Your task to perform on an android device: Set an alarm for 11am Image 0: 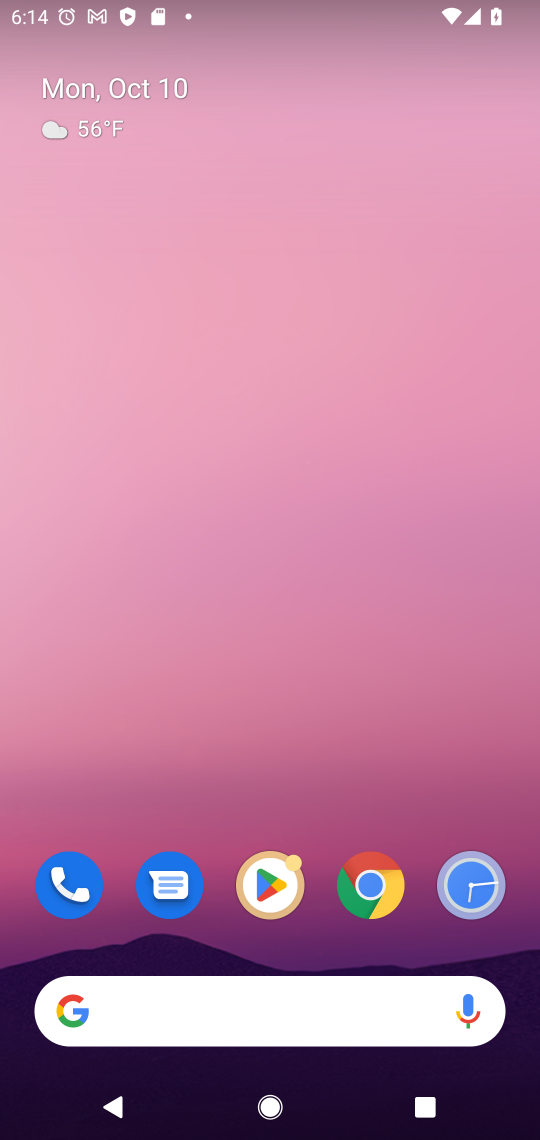
Step 0: click (457, 894)
Your task to perform on an android device: Set an alarm for 11am Image 1: 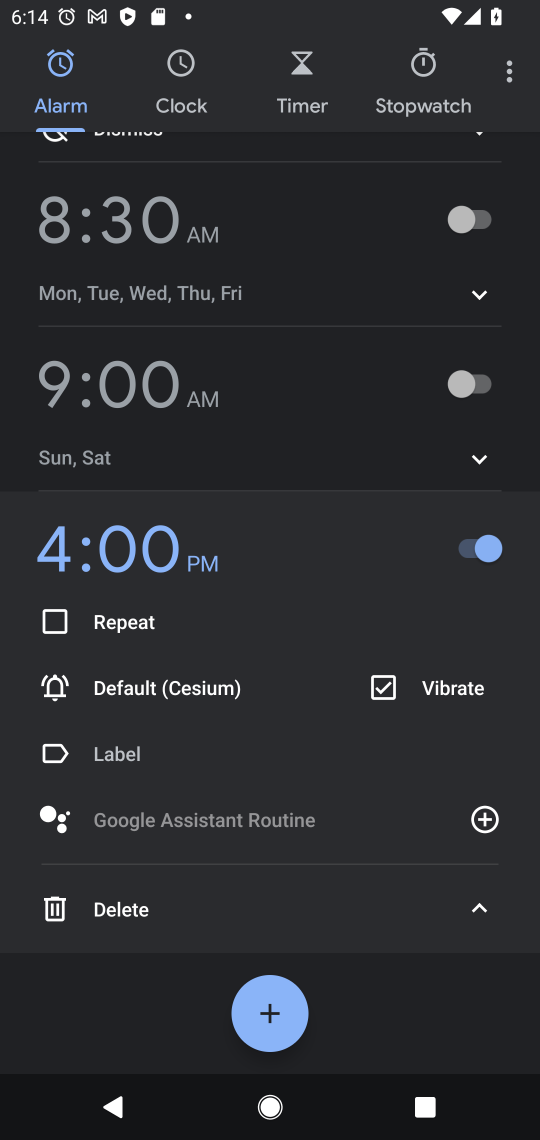
Step 1: click (274, 1031)
Your task to perform on an android device: Set an alarm for 11am Image 2: 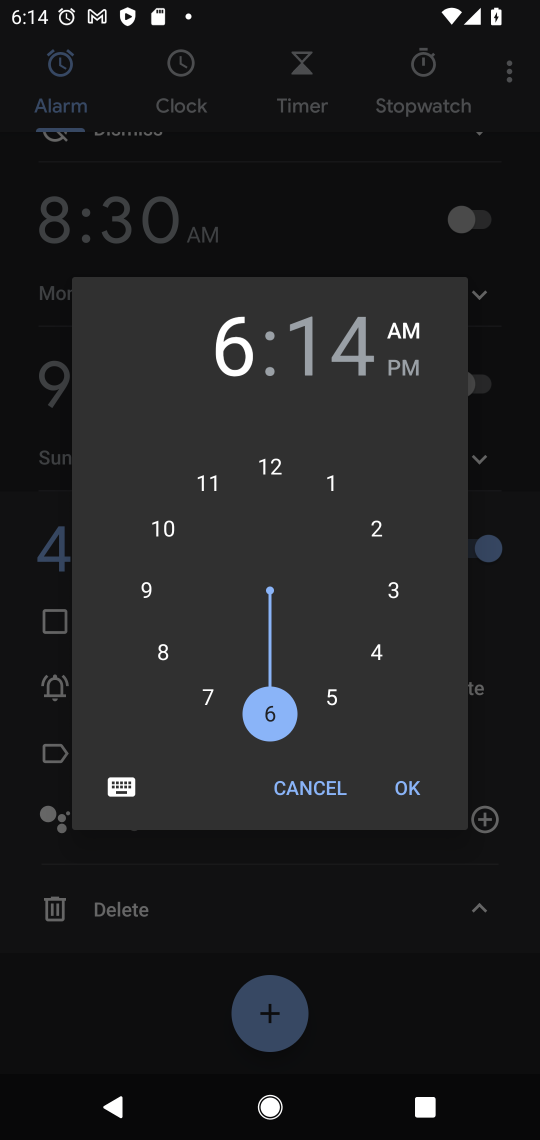
Step 2: click (215, 485)
Your task to perform on an android device: Set an alarm for 11am Image 3: 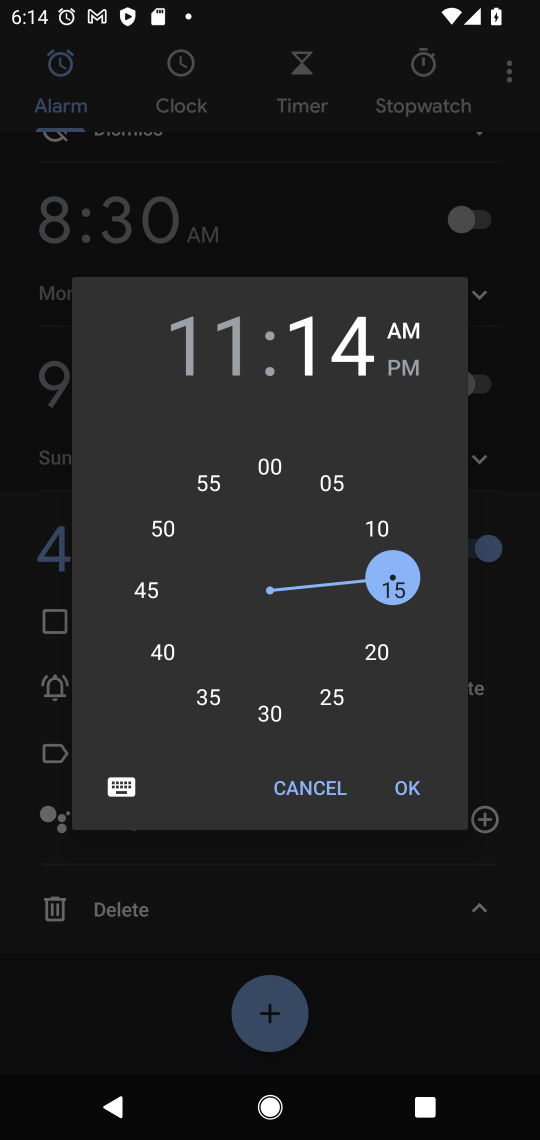
Step 3: click (275, 466)
Your task to perform on an android device: Set an alarm for 11am Image 4: 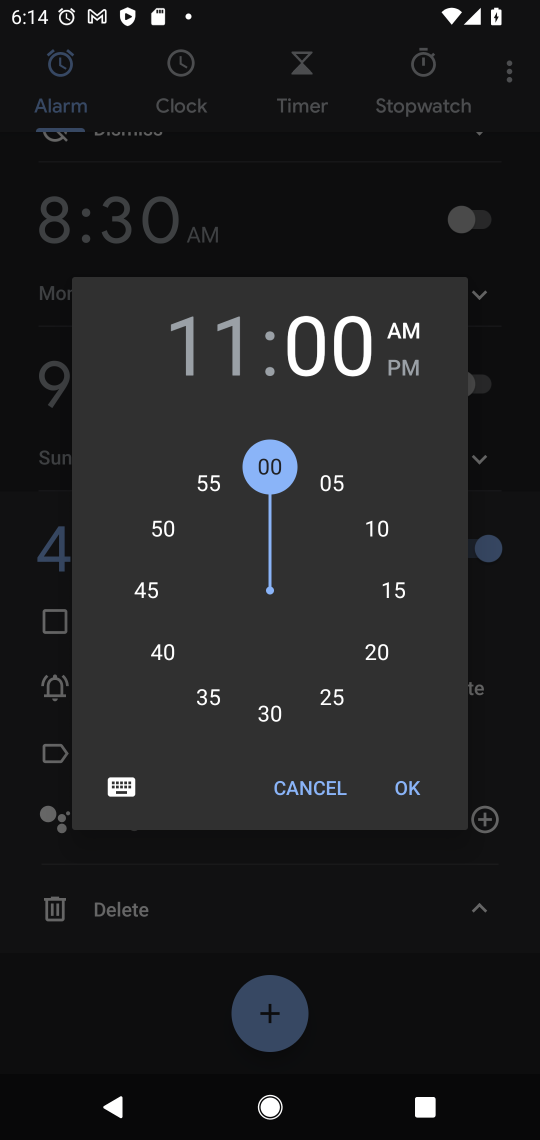
Step 4: click (413, 792)
Your task to perform on an android device: Set an alarm for 11am Image 5: 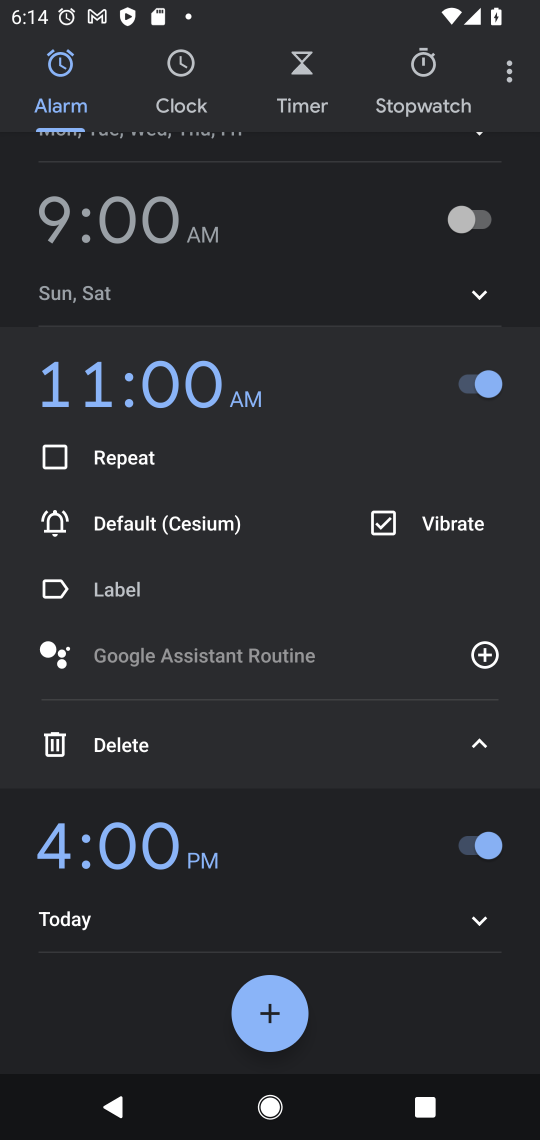
Step 5: task complete